Your task to perform on an android device: Add "macbook pro" to the cart on walmart, then select checkout. Image 0: 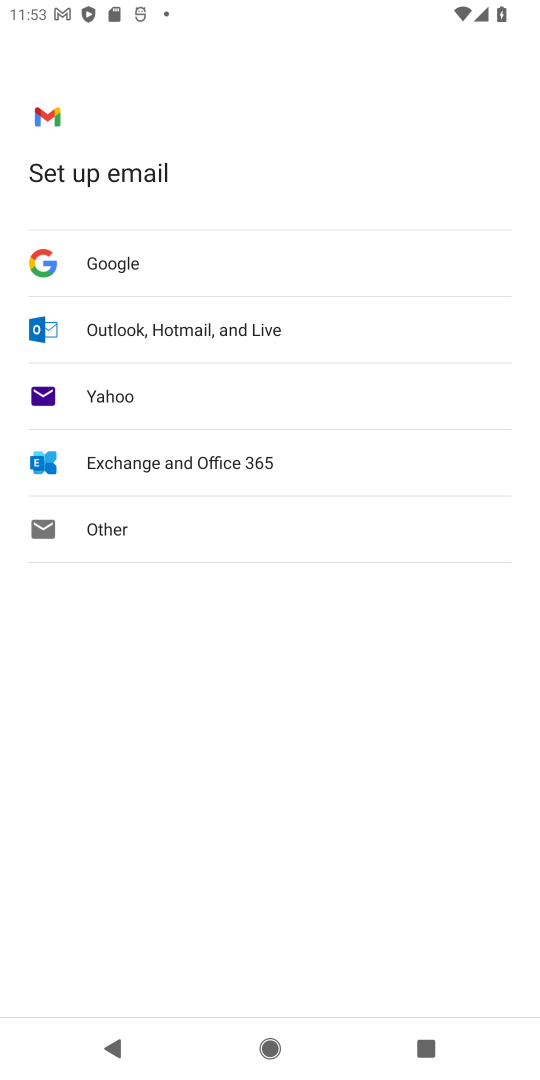
Step 0: press home button
Your task to perform on an android device: Add "macbook pro" to the cart on walmart, then select checkout. Image 1: 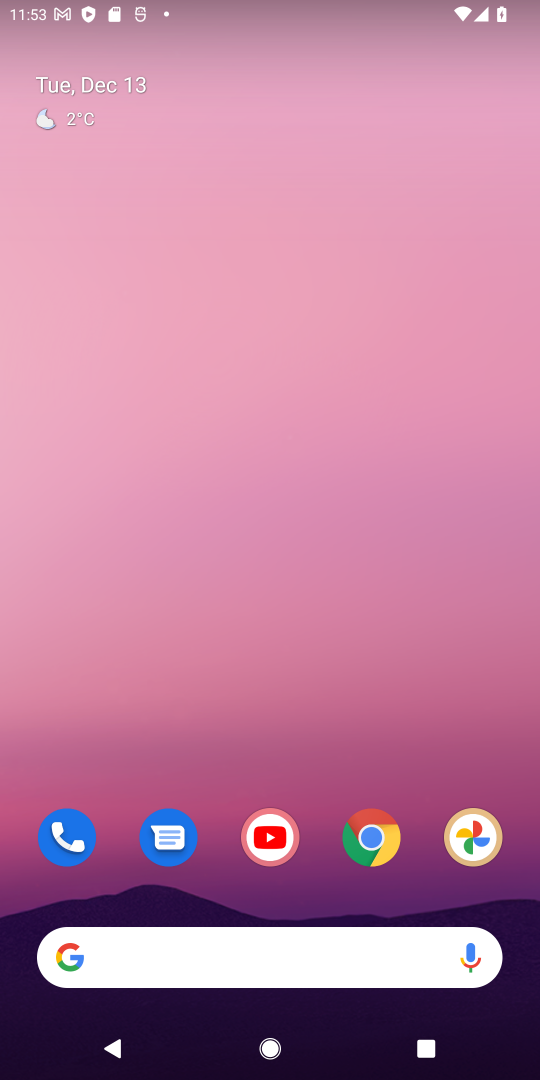
Step 1: click (382, 831)
Your task to perform on an android device: Add "macbook pro" to the cart on walmart, then select checkout. Image 2: 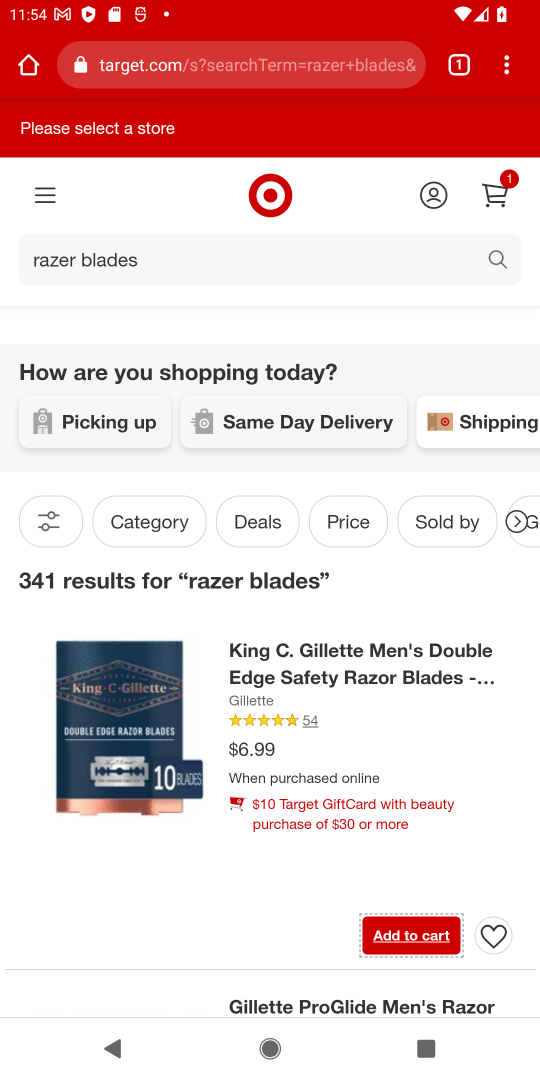
Step 2: task complete